Your task to perform on an android device: move a message to another label in the gmail app Image 0: 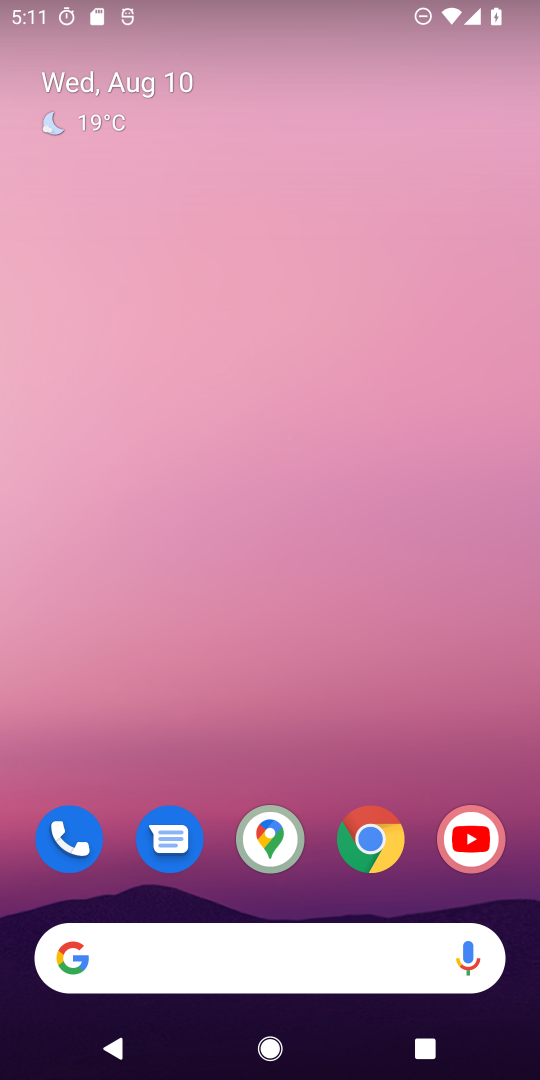
Step 0: drag from (49, 1029) to (181, 709)
Your task to perform on an android device: move a message to another label in the gmail app Image 1: 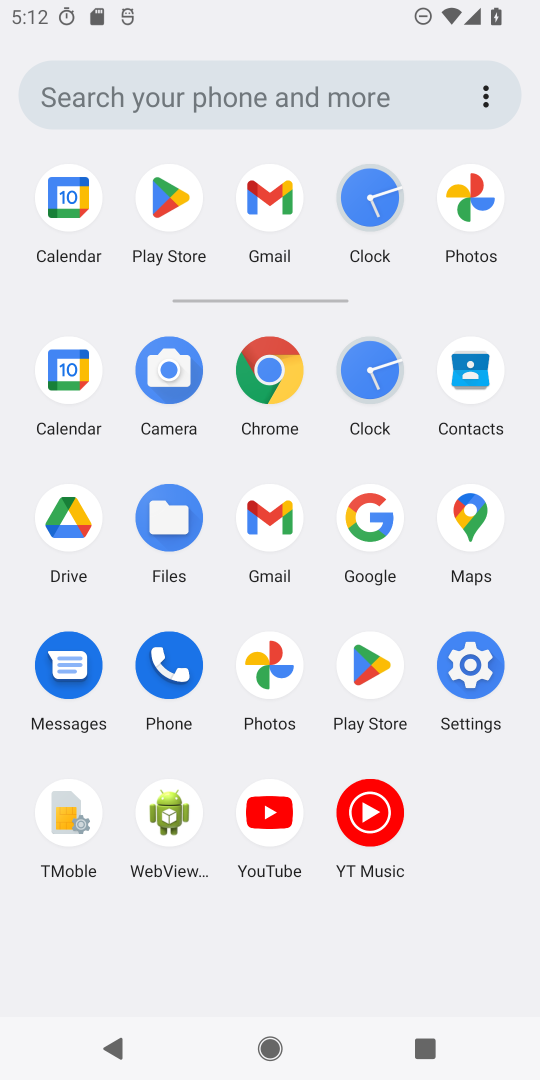
Step 1: click (280, 194)
Your task to perform on an android device: move a message to another label in the gmail app Image 2: 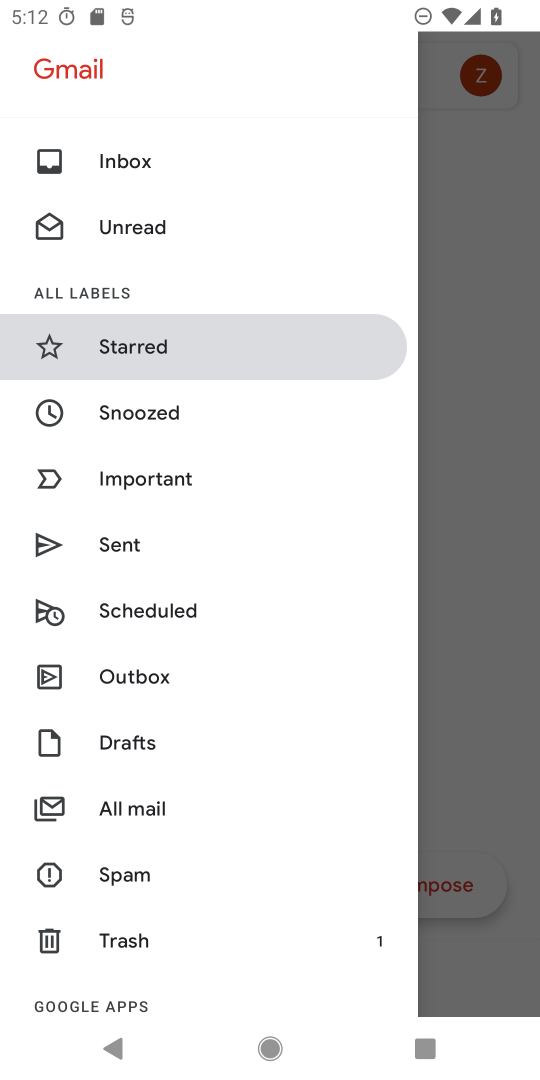
Step 2: click (154, 150)
Your task to perform on an android device: move a message to another label in the gmail app Image 3: 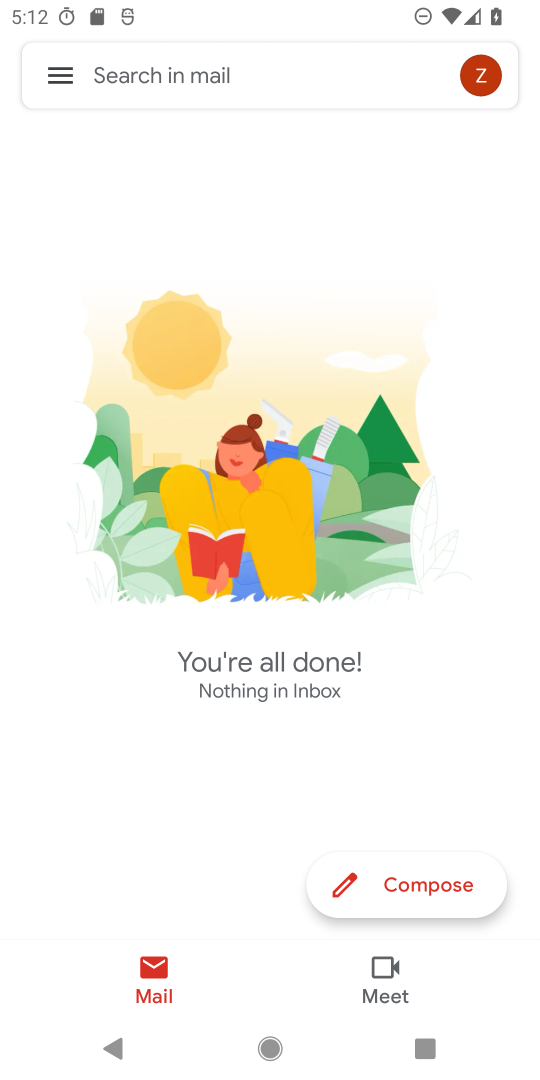
Step 3: click (58, 63)
Your task to perform on an android device: move a message to another label in the gmail app Image 4: 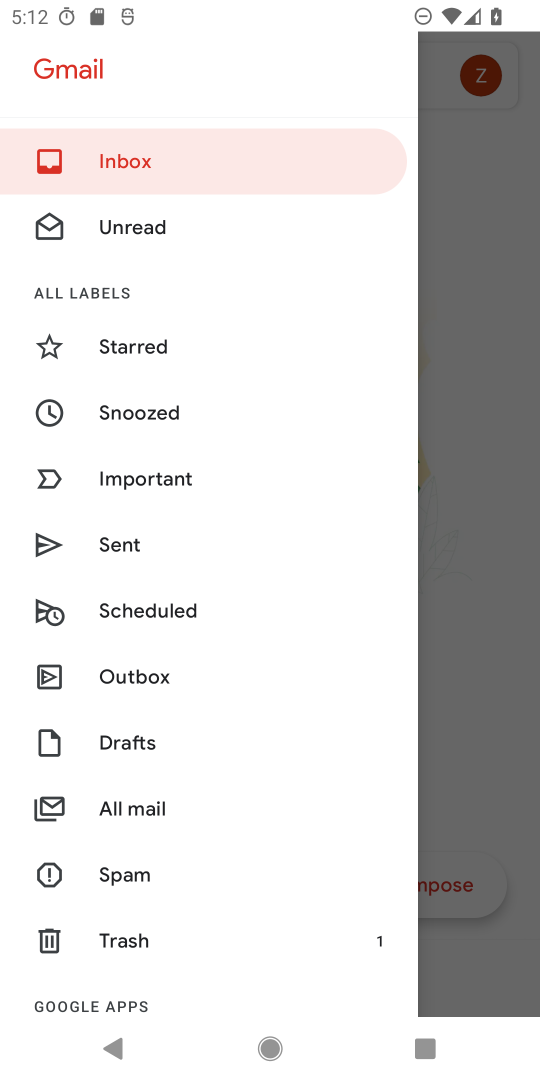
Step 4: click (141, 157)
Your task to perform on an android device: move a message to another label in the gmail app Image 5: 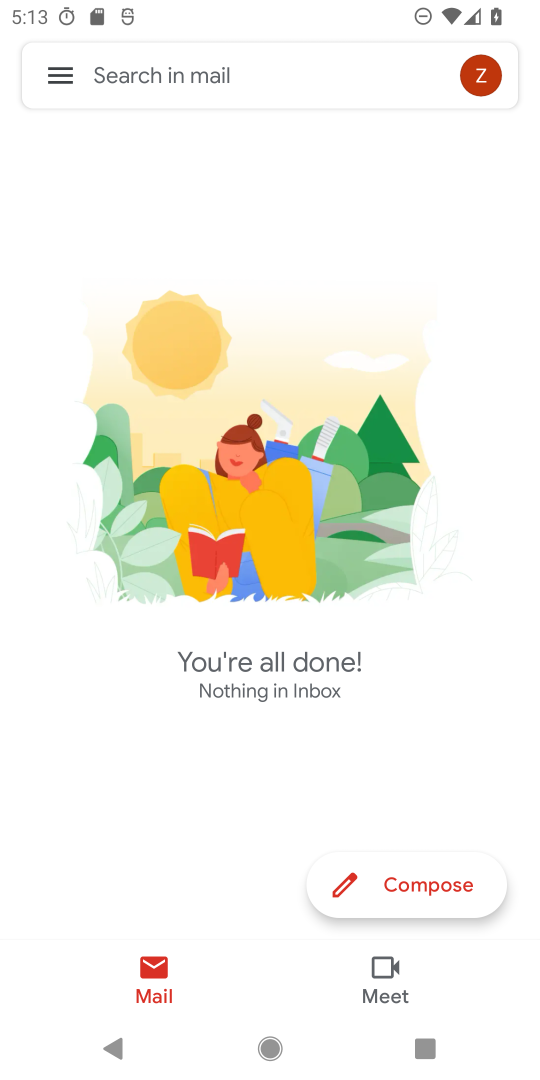
Step 5: task complete